Your task to perform on an android device: show emergency info Image 0: 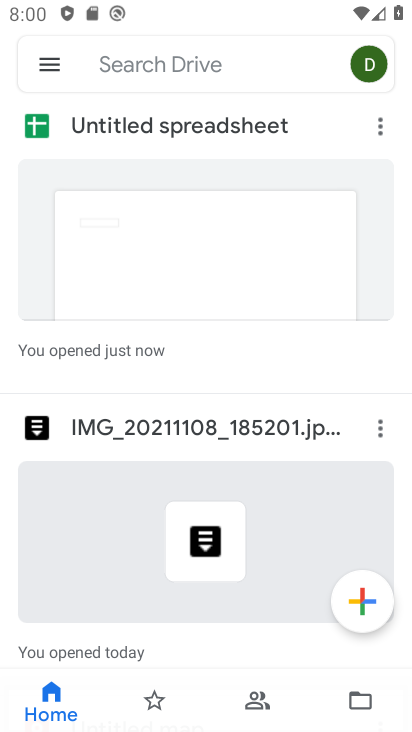
Step 0: press home button
Your task to perform on an android device: show emergency info Image 1: 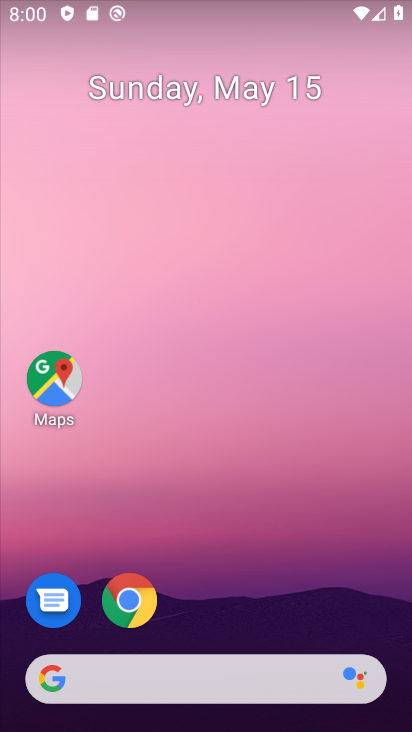
Step 1: drag from (244, 581) to (104, 90)
Your task to perform on an android device: show emergency info Image 2: 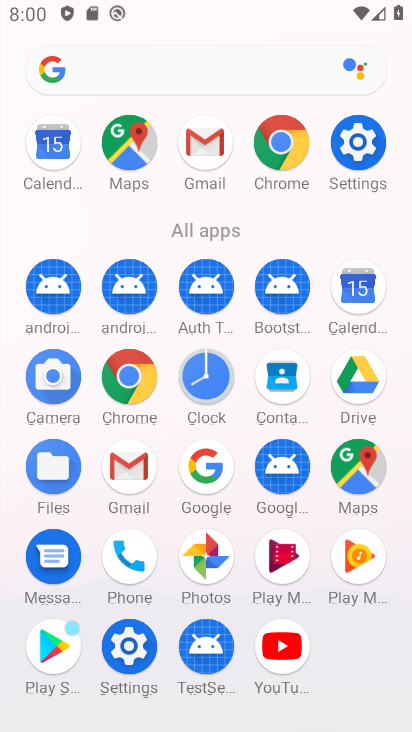
Step 2: click (352, 134)
Your task to perform on an android device: show emergency info Image 3: 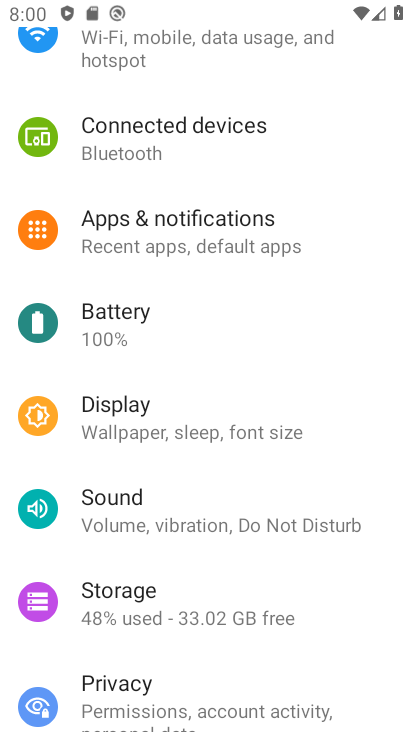
Step 3: drag from (184, 696) to (194, 176)
Your task to perform on an android device: show emergency info Image 4: 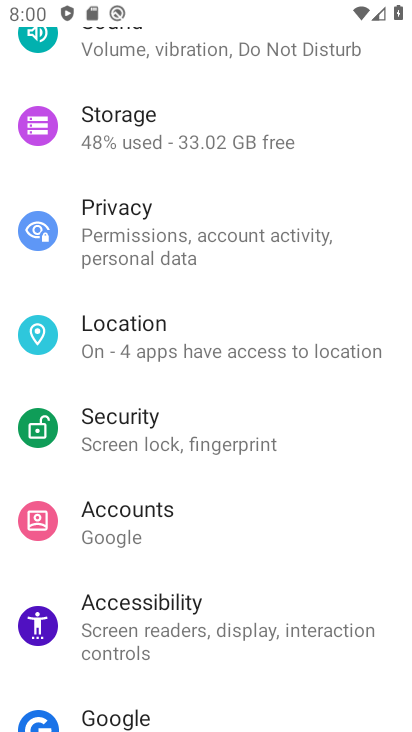
Step 4: drag from (180, 690) to (191, 247)
Your task to perform on an android device: show emergency info Image 5: 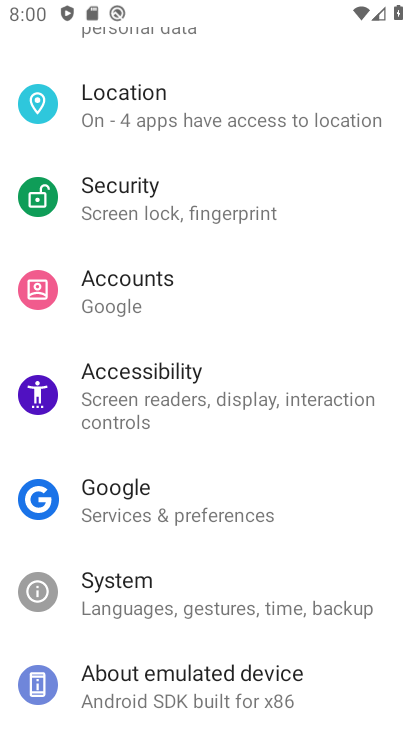
Step 5: click (155, 684)
Your task to perform on an android device: show emergency info Image 6: 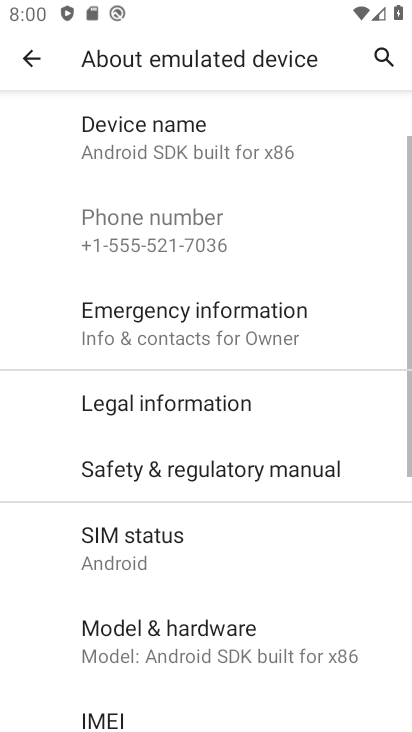
Step 6: click (203, 327)
Your task to perform on an android device: show emergency info Image 7: 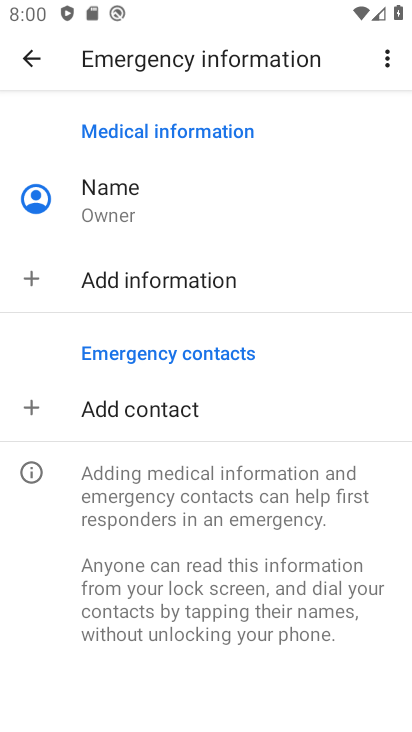
Step 7: task complete